Your task to perform on an android device: turn off improve location accuracy Image 0: 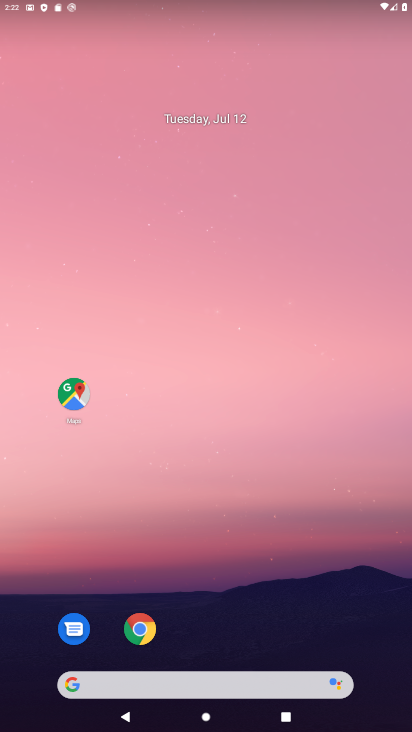
Step 0: drag from (205, 688) to (247, 165)
Your task to perform on an android device: turn off improve location accuracy Image 1: 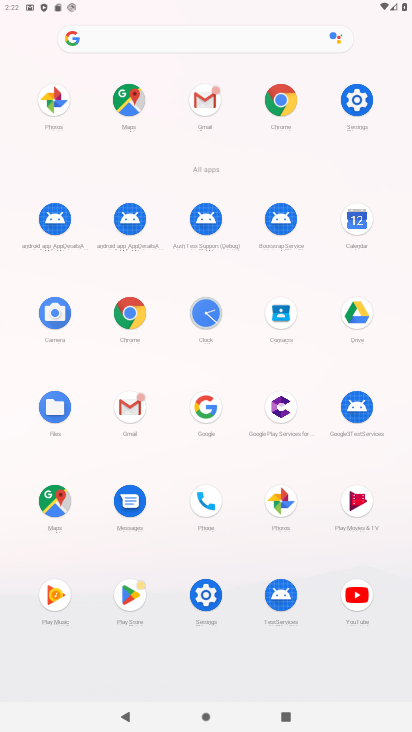
Step 1: click (357, 100)
Your task to perform on an android device: turn off improve location accuracy Image 2: 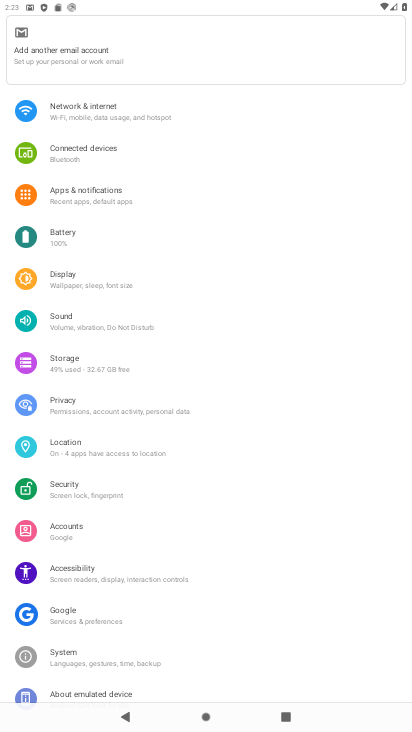
Step 2: click (73, 449)
Your task to perform on an android device: turn off improve location accuracy Image 3: 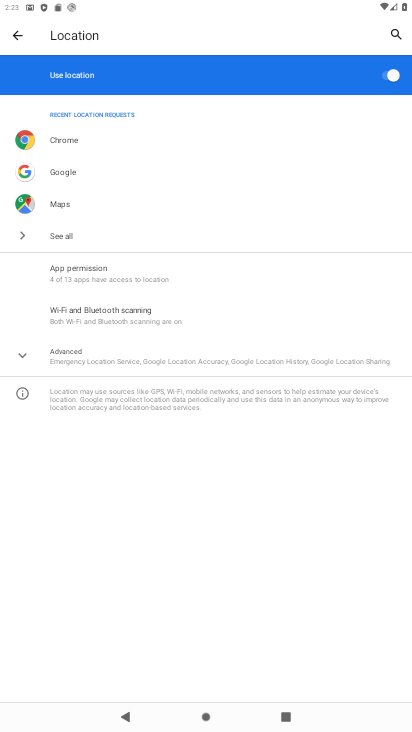
Step 3: click (123, 363)
Your task to perform on an android device: turn off improve location accuracy Image 4: 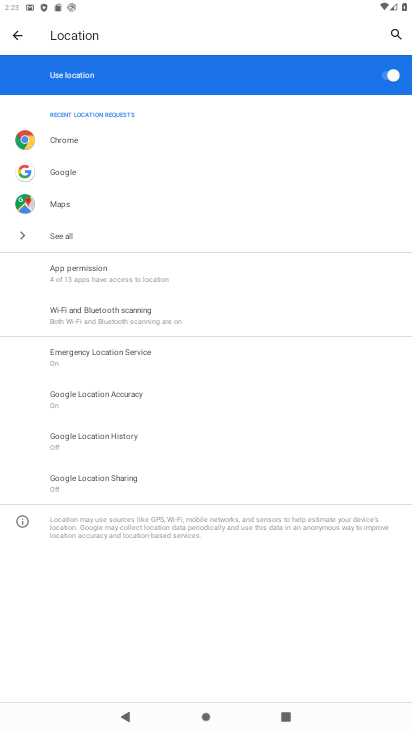
Step 4: click (126, 392)
Your task to perform on an android device: turn off improve location accuracy Image 5: 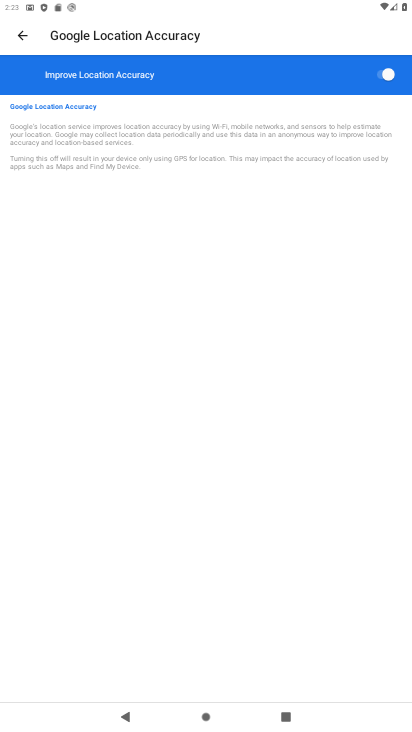
Step 5: click (385, 76)
Your task to perform on an android device: turn off improve location accuracy Image 6: 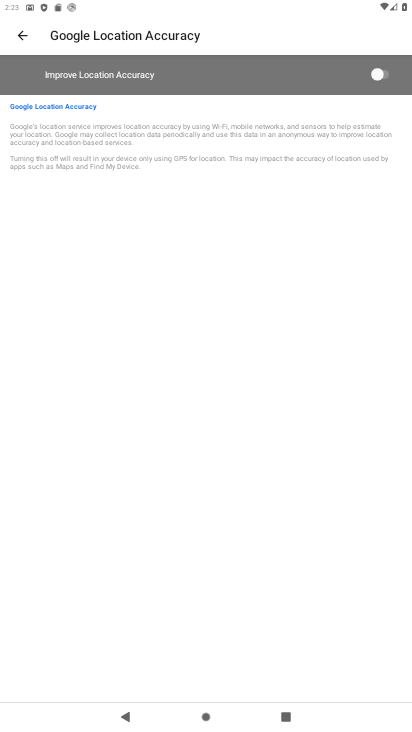
Step 6: task complete